Your task to perform on an android device: Open sound settings Image 0: 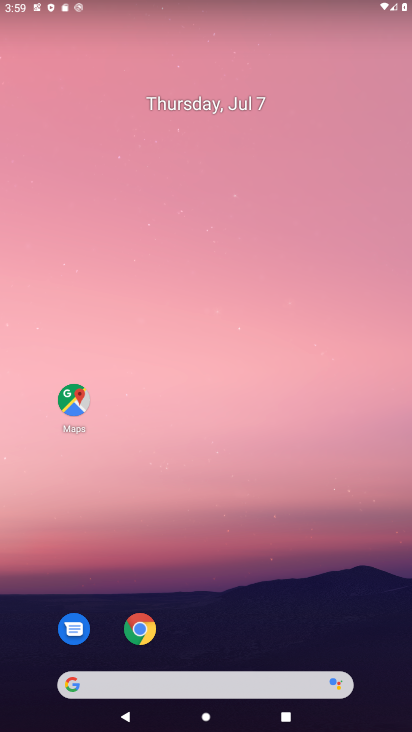
Step 0: drag from (235, 634) to (210, 191)
Your task to perform on an android device: Open sound settings Image 1: 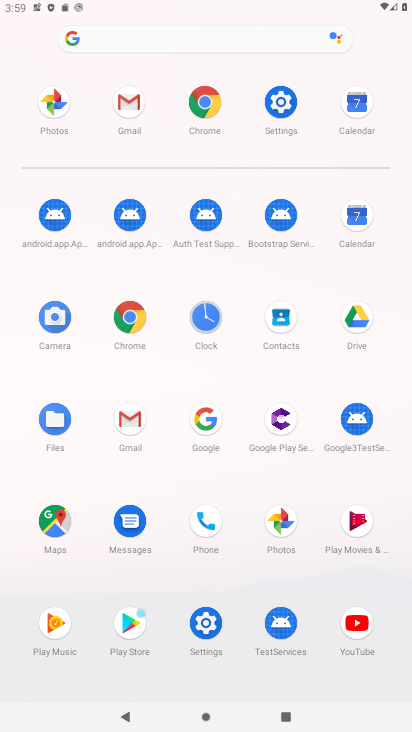
Step 1: click (273, 106)
Your task to perform on an android device: Open sound settings Image 2: 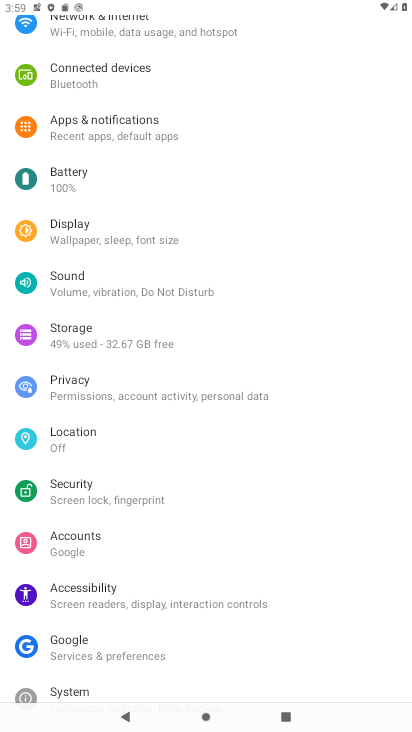
Step 2: click (116, 271)
Your task to perform on an android device: Open sound settings Image 3: 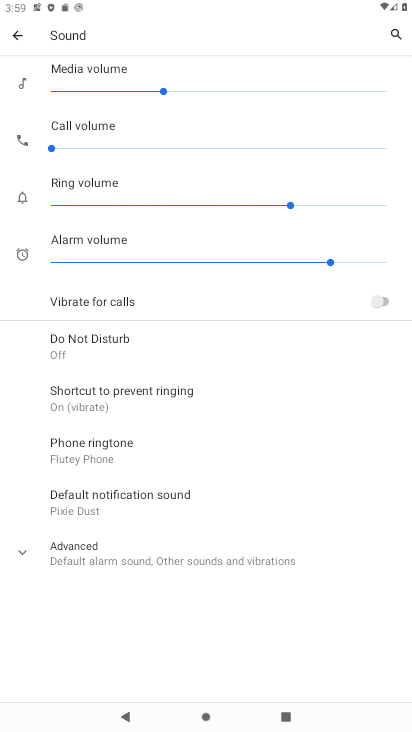
Step 3: task complete